Your task to perform on an android device: change the clock display to show seconds Image 0: 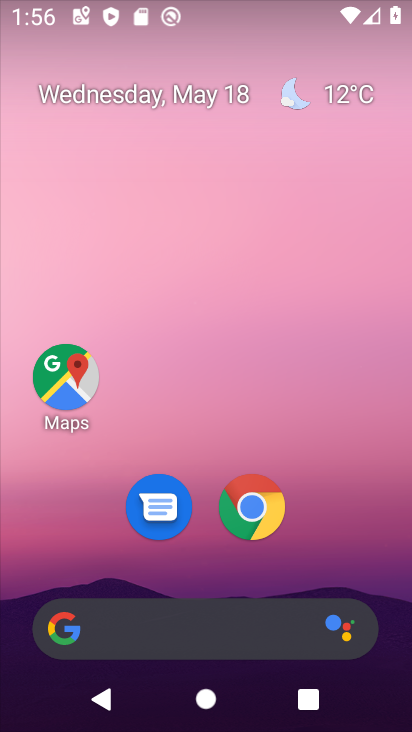
Step 0: drag from (398, 698) to (368, 133)
Your task to perform on an android device: change the clock display to show seconds Image 1: 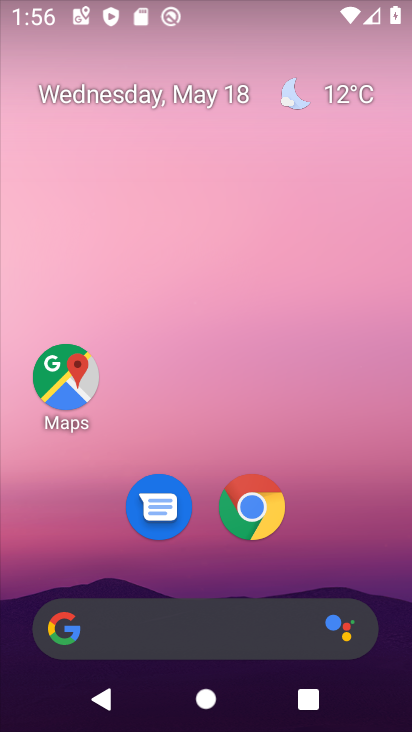
Step 1: drag from (398, 615) to (380, 123)
Your task to perform on an android device: change the clock display to show seconds Image 2: 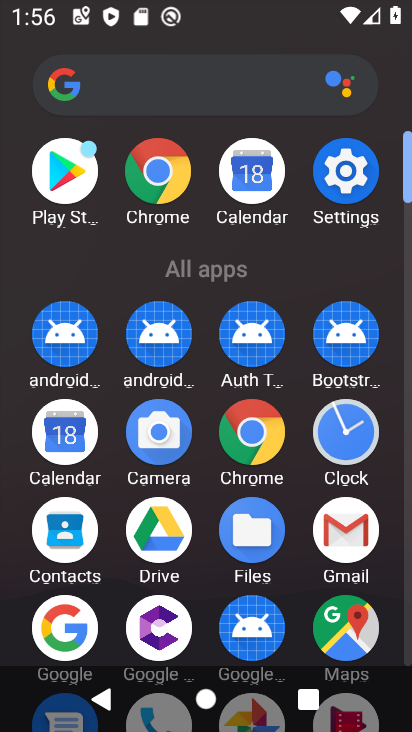
Step 2: click (341, 434)
Your task to perform on an android device: change the clock display to show seconds Image 3: 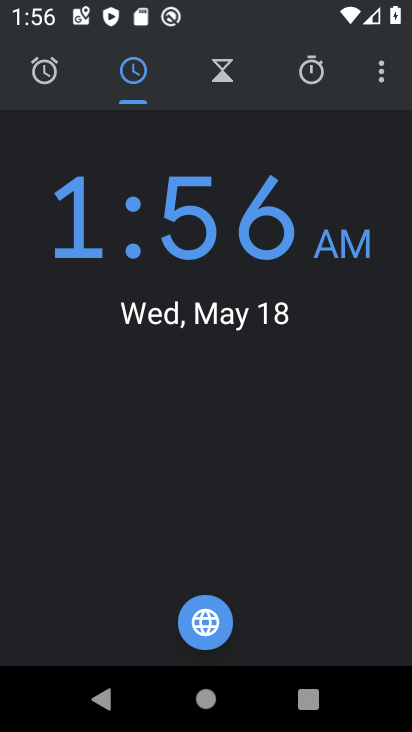
Step 3: click (380, 69)
Your task to perform on an android device: change the clock display to show seconds Image 4: 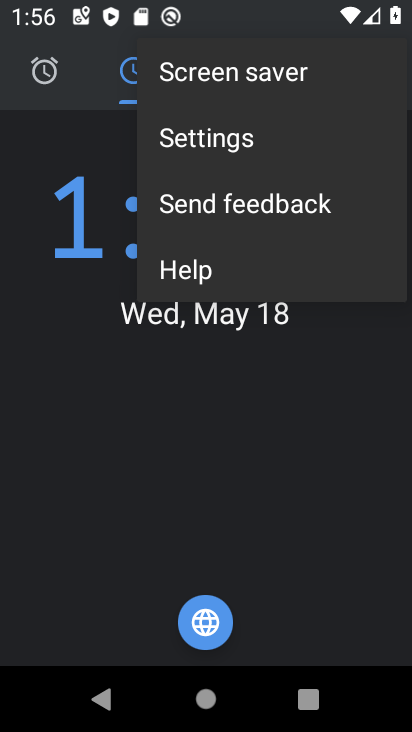
Step 4: click (210, 146)
Your task to perform on an android device: change the clock display to show seconds Image 5: 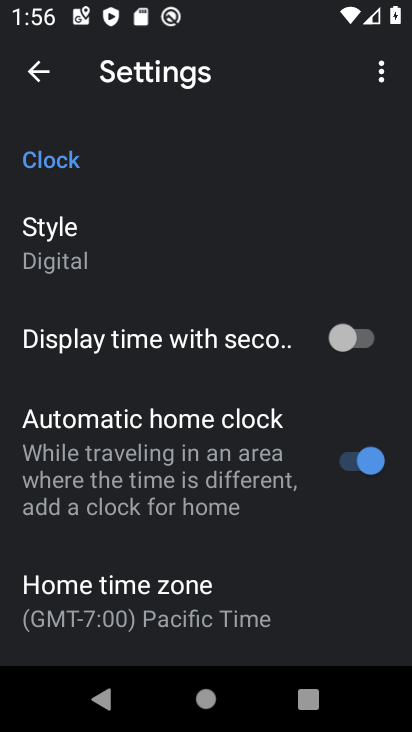
Step 5: click (357, 337)
Your task to perform on an android device: change the clock display to show seconds Image 6: 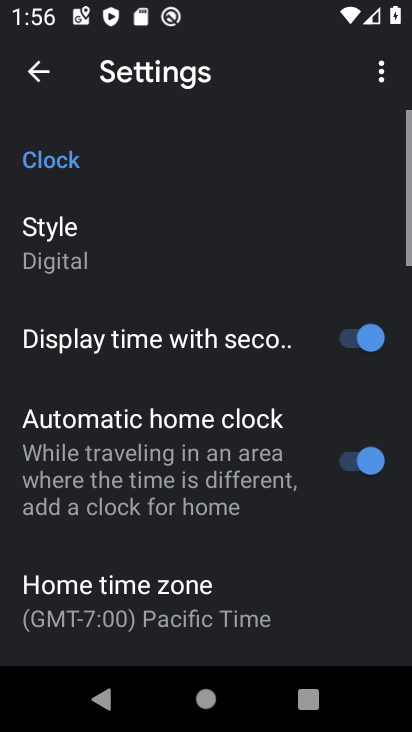
Step 6: task complete